Your task to perform on an android device: What's on my calendar tomorrow? Image 0: 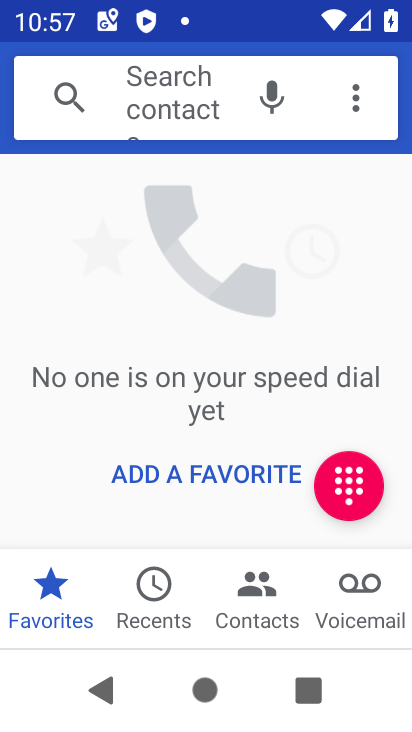
Step 0: press home button
Your task to perform on an android device: What's on my calendar tomorrow? Image 1: 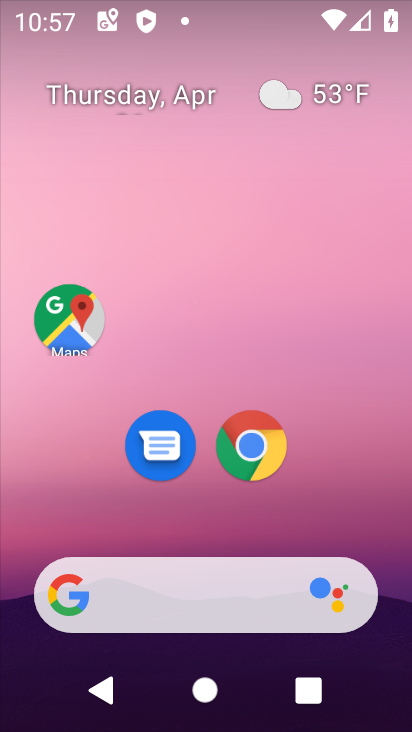
Step 1: drag from (169, 567) to (262, 157)
Your task to perform on an android device: What's on my calendar tomorrow? Image 2: 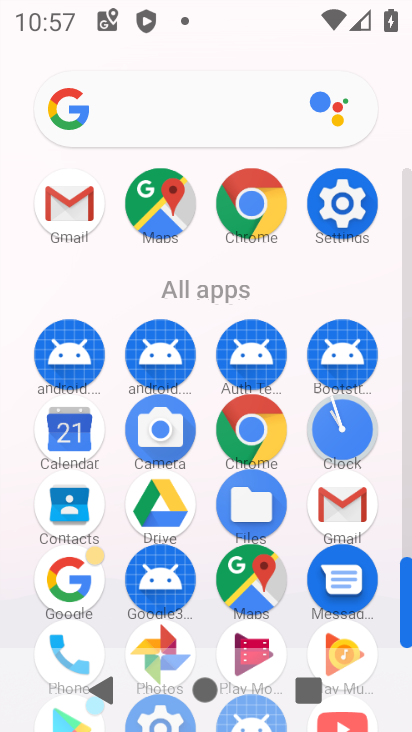
Step 2: click (74, 452)
Your task to perform on an android device: What's on my calendar tomorrow? Image 3: 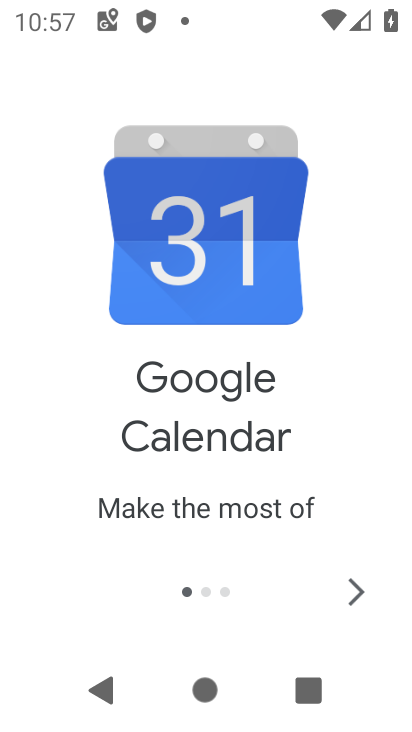
Step 3: click (355, 591)
Your task to perform on an android device: What's on my calendar tomorrow? Image 4: 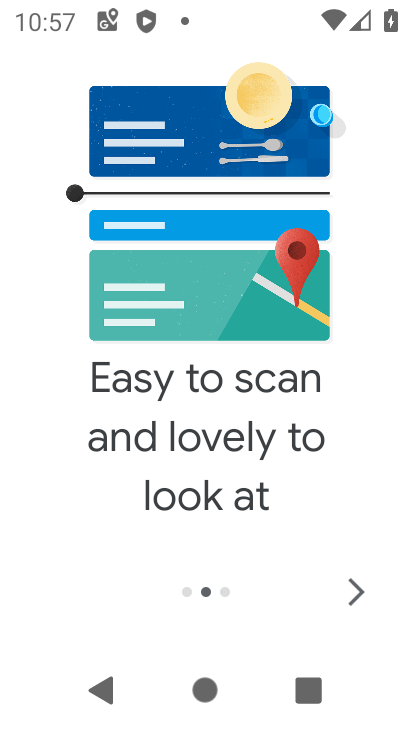
Step 4: click (359, 587)
Your task to perform on an android device: What's on my calendar tomorrow? Image 5: 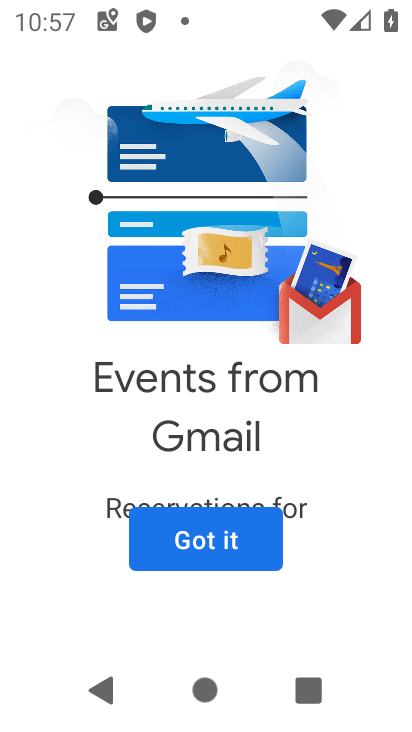
Step 5: click (212, 536)
Your task to perform on an android device: What's on my calendar tomorrow? Image 6: 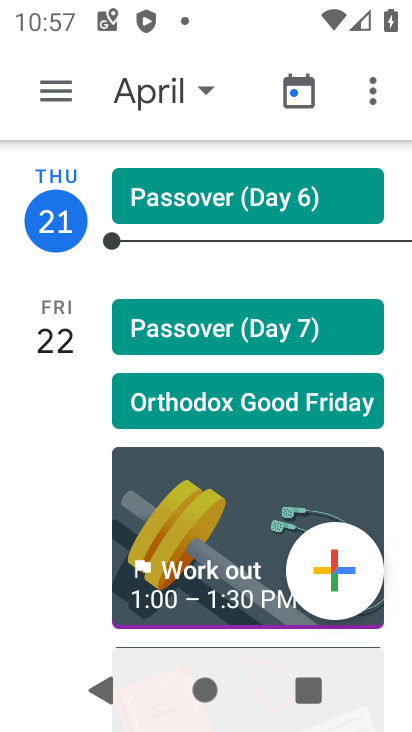
Step 6: click (156, 99)
Your task to perform on an android device: What's on my calendar tomorrow? Image 7: 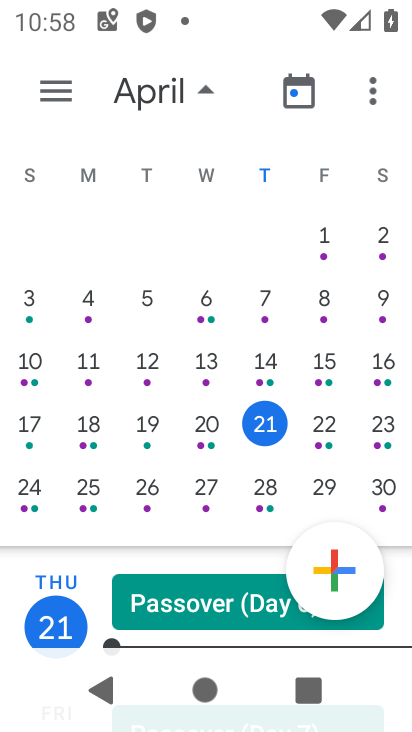
Step 7: click (337, 431)
Your task to perform on an android device: What's on my calendar tomorrow? Image 8: 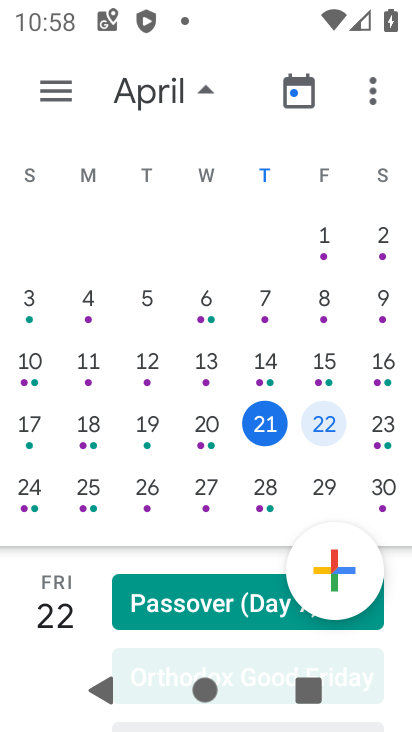
Step 8: click (66, 87)
Your task to perform on an android device: What's on my calendar tomorrow? Image 9: 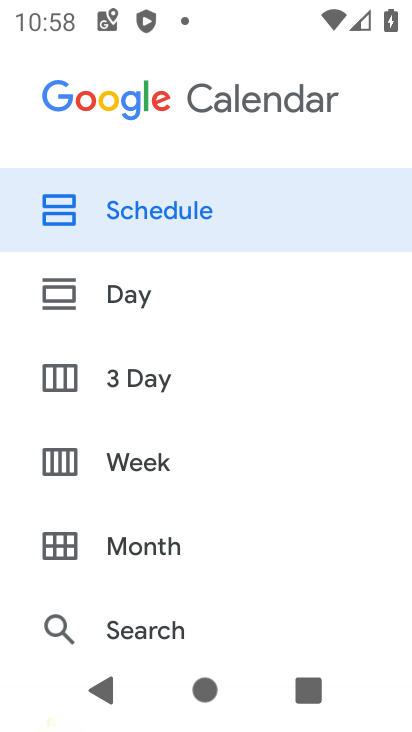
Step 9: click (135, 210)
Your task to perform on an android device: What's on my calendar tomorrow? Image 10: 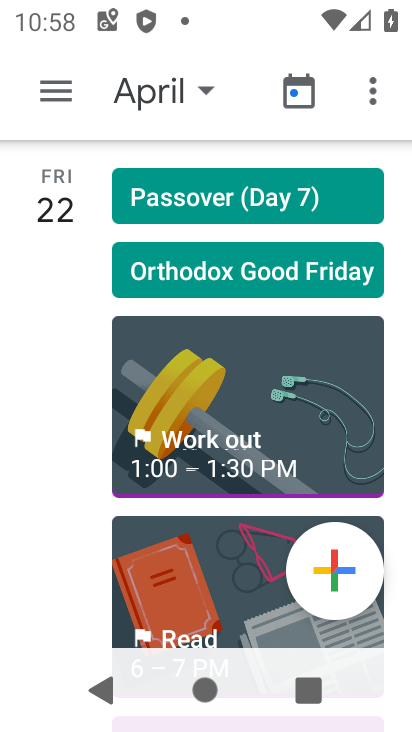
Step 10: task complete